Your task to perform on an android device: What's the weather today? Image 0: 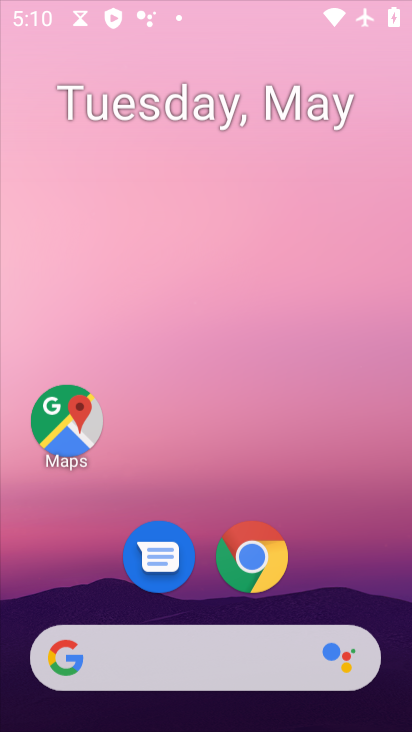
Step 0: click (35, 74)
Your task to perform on an android device: What's the weather today? Image 1: 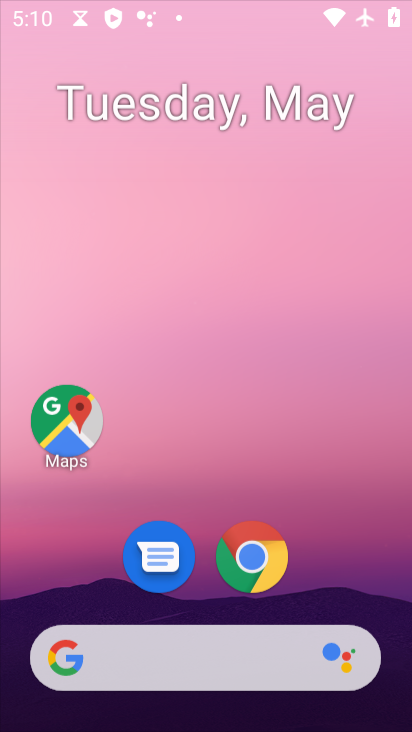
Step 1: press back button
Your task to perform on an android device: What's the weather today? Image 2: 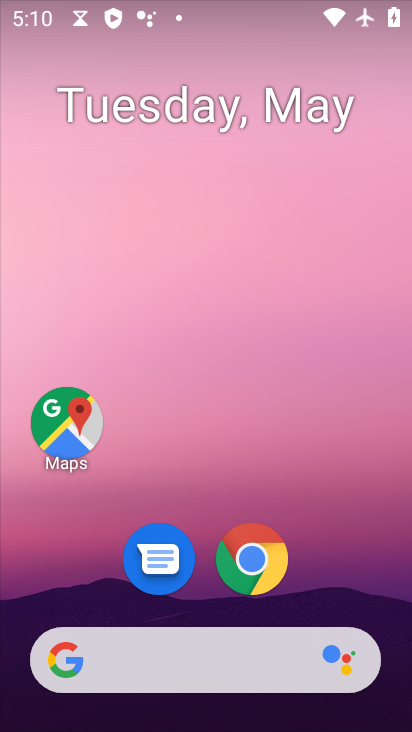
Step 2: drag from (292, 608) to (257, 173)
Your task to perform on an android device: What's the weather today? Image 3: 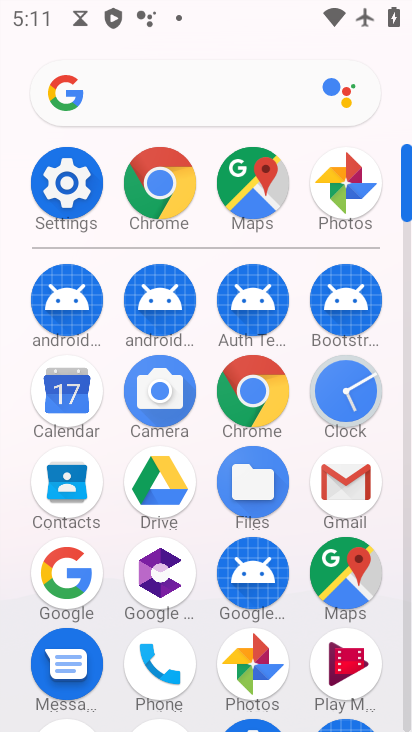
Step 3: press back button
Your task to perform on an android device: What's the weather today? Image 4: 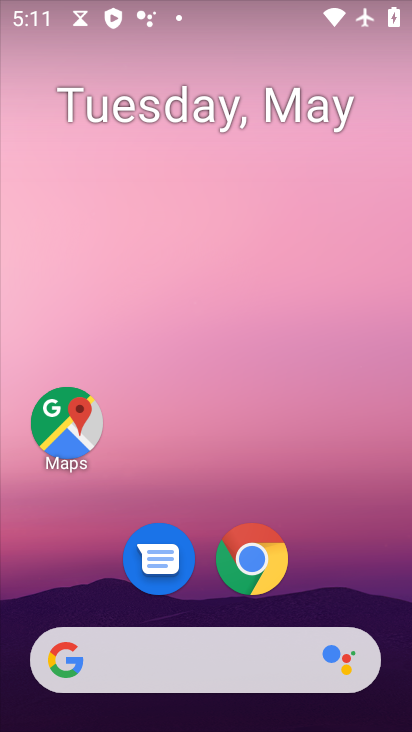
Step 4: drag from (3, 186) to (376, 541)
Your task to perform on an android device: What's the weather today? Image 5: 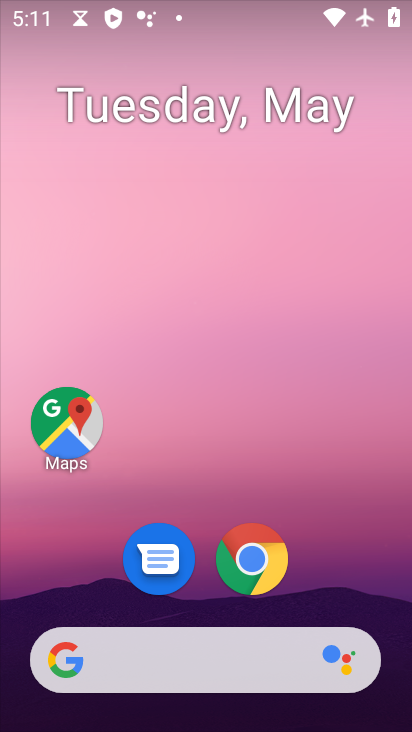
Step 5: drag from (15, 212) to (396, 334)
Your task to perform on an android device: What's the weather today? Image 6: 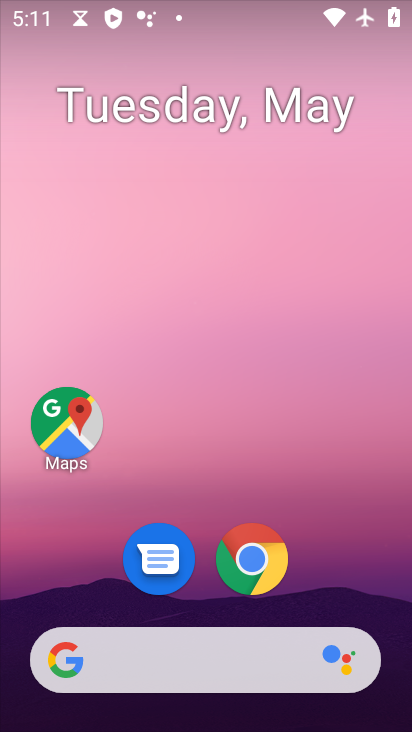
Step 6: drag from (14, 219) to (391, 317)
Your task to perform on an android device: What's the weather today? Image 7: 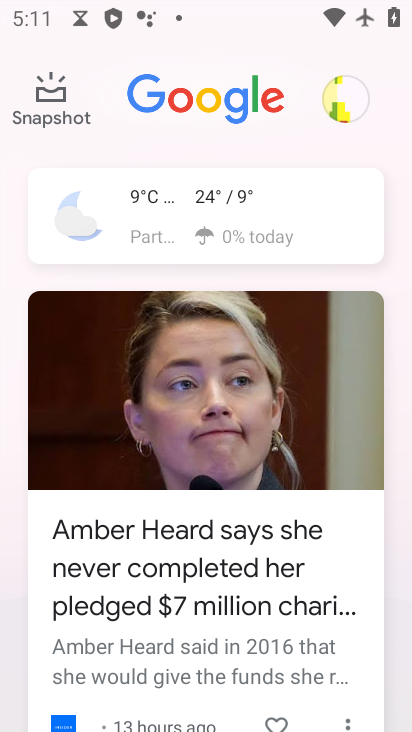
Step 7: click (157, 215)
Your task to perform on an android device: What's the weather today? Image 8: 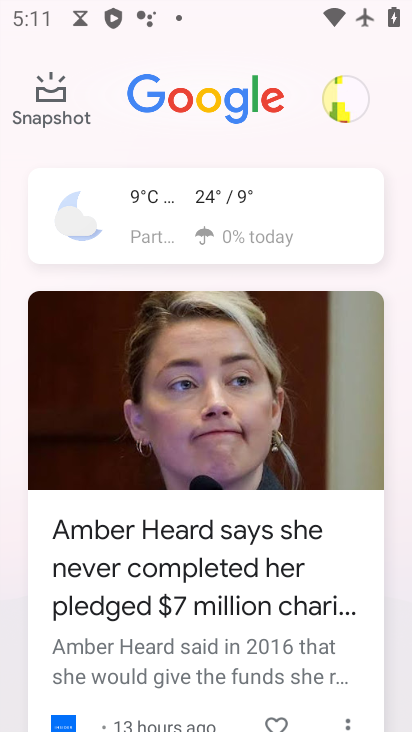
Step 8: click (157, 215)
Your task to perform on an android device: What's the weather today? Image 9: 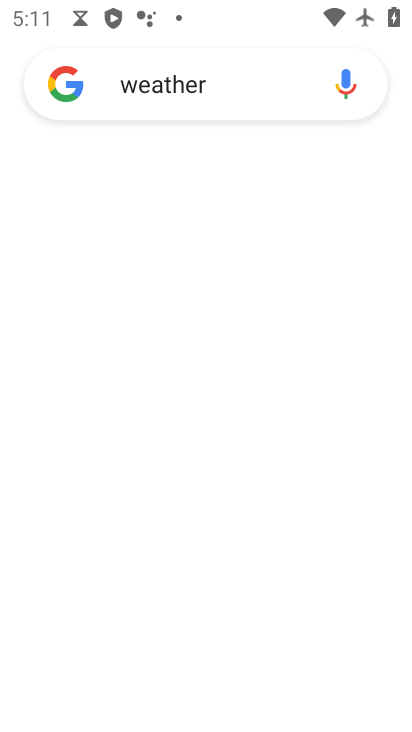
Step 9: click (157, 215)
Your task to perform on an android device: What's the weather today? Image 10: 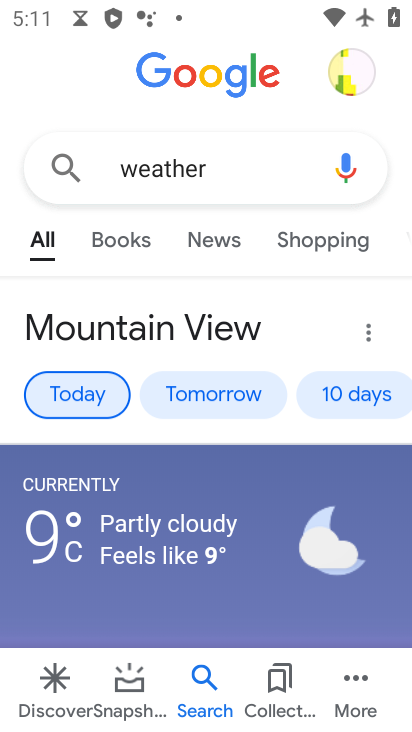
Step 10: task complete